Your task to perform on an android device: Do I have any events tomorrow? Image 0: 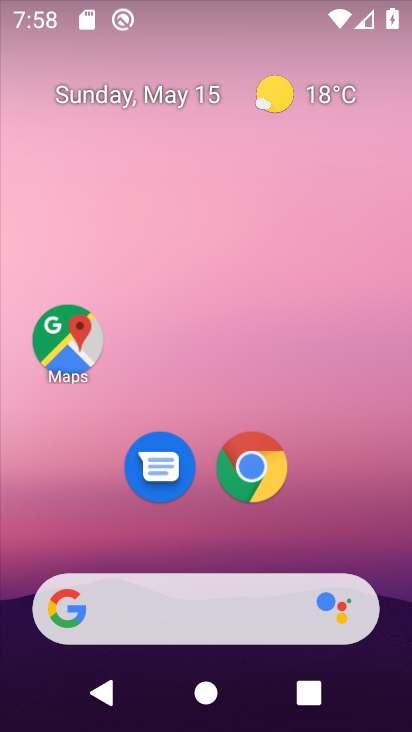
Step 0: drag from (188, 568) to (210, 103)
Your task to perform on an android device: Do I have any events tomorrow? Image 1: 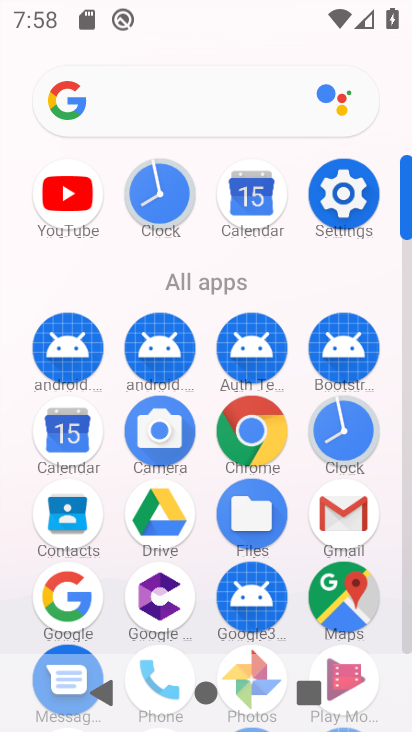
Step 1: click (249, 180)
Your task to perform on an android device: Do I have any events tomorrow? Image 2: 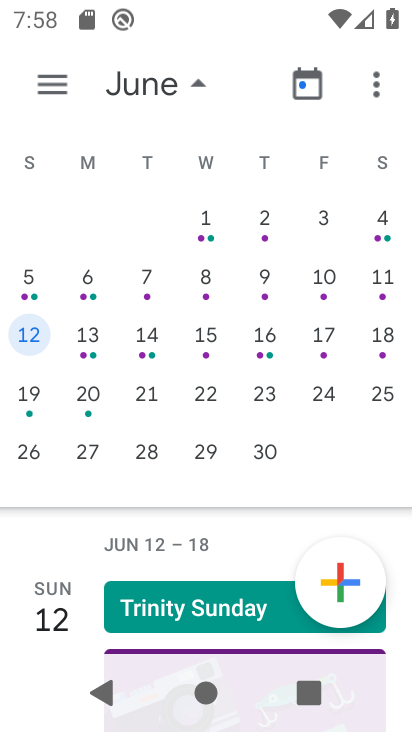
Step 2: drag from (40, 242) to (389, 241)
Your task to perform on an android device: Do I have any events tomorrow? Image 3: 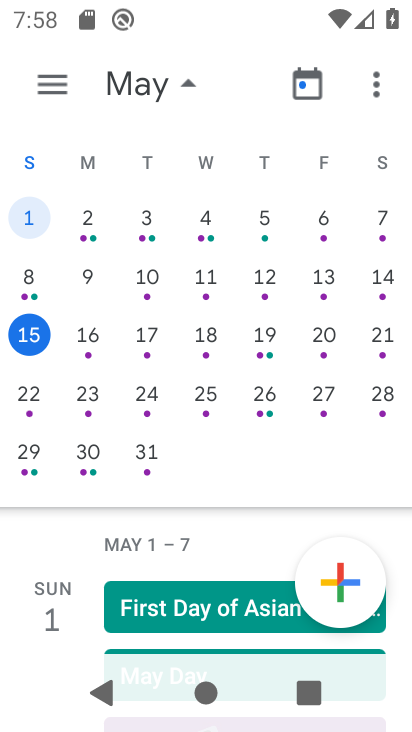
Step 3: click (86, 342)
Your task to perform on an android device: Do I have any events tomorrow? Image 4: 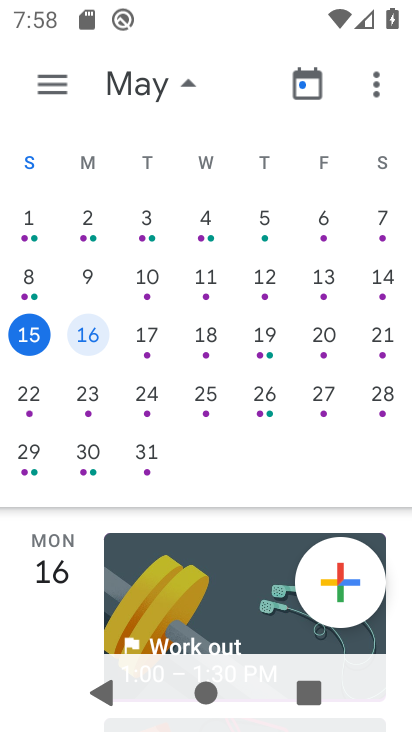
Step 4: task complete